Your task to perform on an android device: Open ESPN.com Image 0: 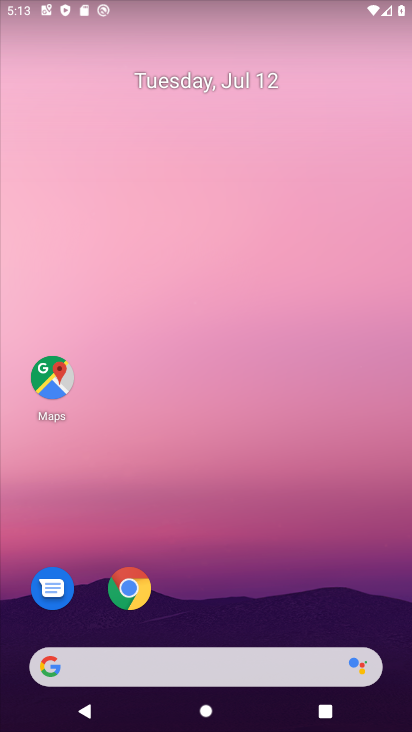
Step 0: drag from (217, 492) to (270, 0)
Your task to perform on an android device: Open ESPN.com Image 1: 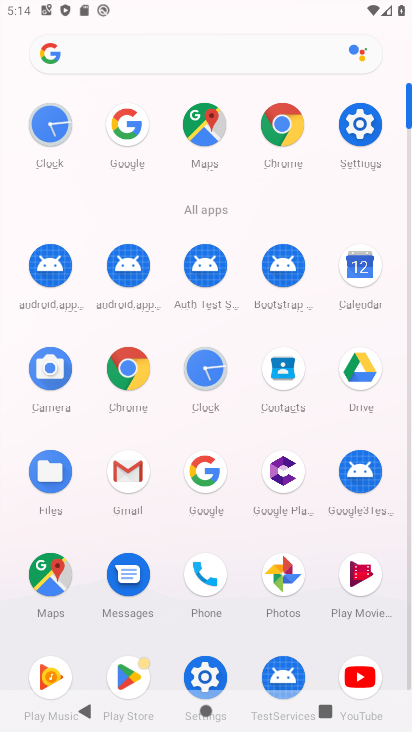
Step 1: click (276, 129)
Your task to perform on an android device: Open ESPN.com Image 2: 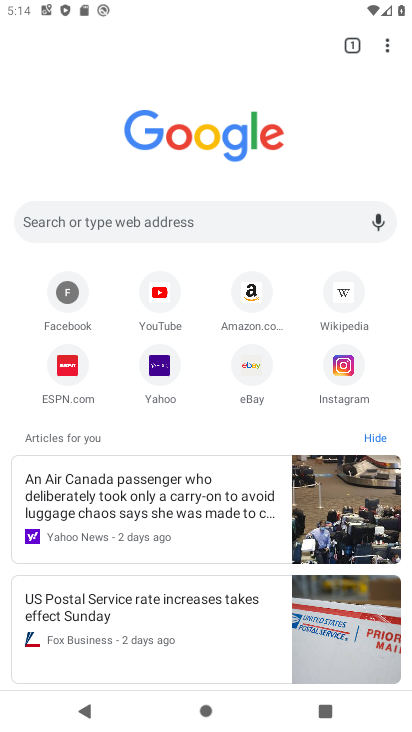
Step 2: click (41, 372)
Your task to perform on an android device: Open ESPN.com Image 3: 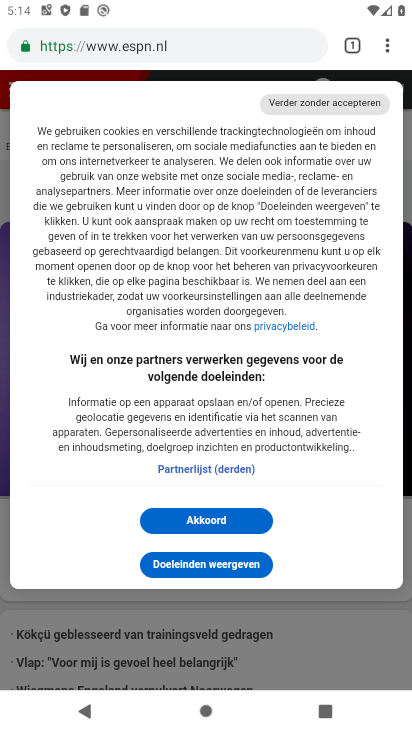
Step 3: task complete